Your task to perform on an android device: Open Youtube and go to the subscriptions tab Image 0: 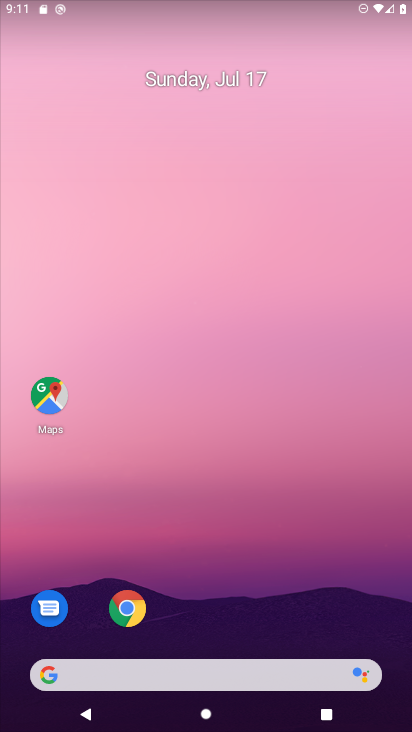
Step 0: drag from (232, 681) to (281, 149)
Your task to perform on an android device: Open Youtube and go to the subscriptions tab Image 1: 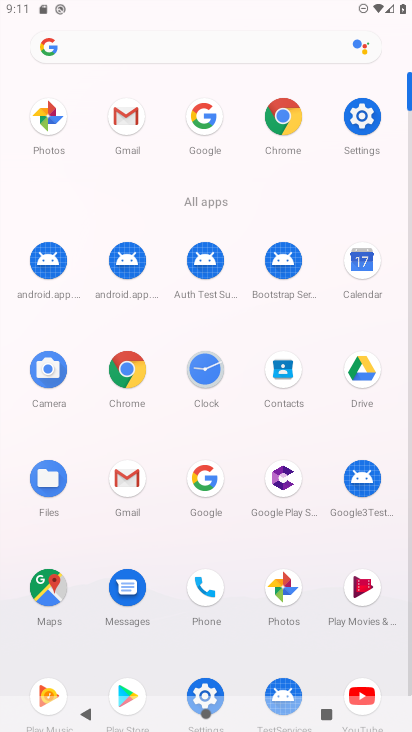
Step 1: drag from (306, 658) to (369, 550)
Your task to perform on an android device: Open Youtube and go to the subscriptions tab Image 2: 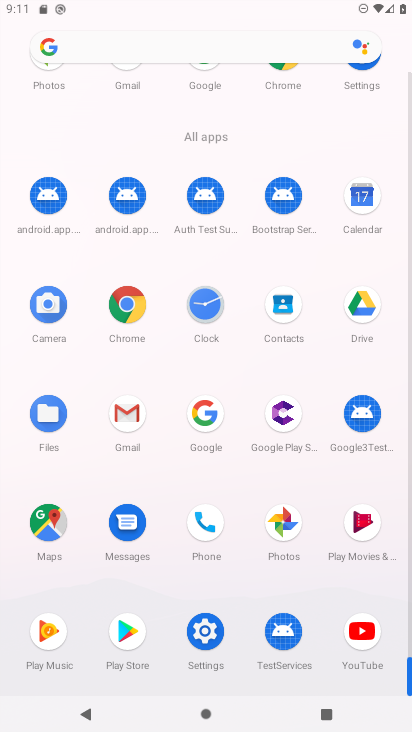
Step 2: click (361, 629)
Your task to perform on an android device: Open Youtube and go to the subscriptions tab Image 3: 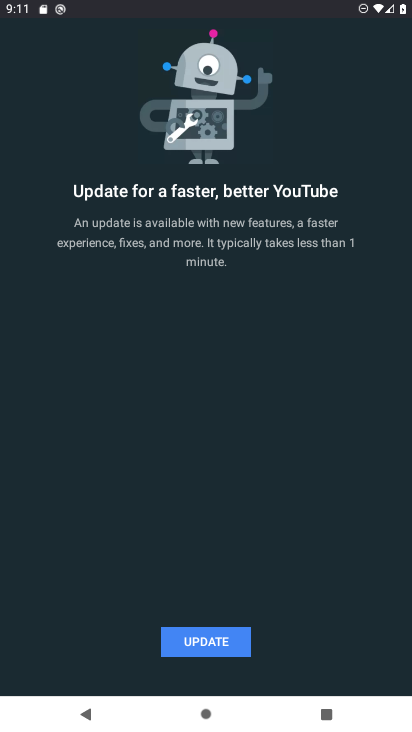
Step 3: click (224, 645)
Your task to perform on an android device: Open Youtube and go to the subscriptions tab Image 4: 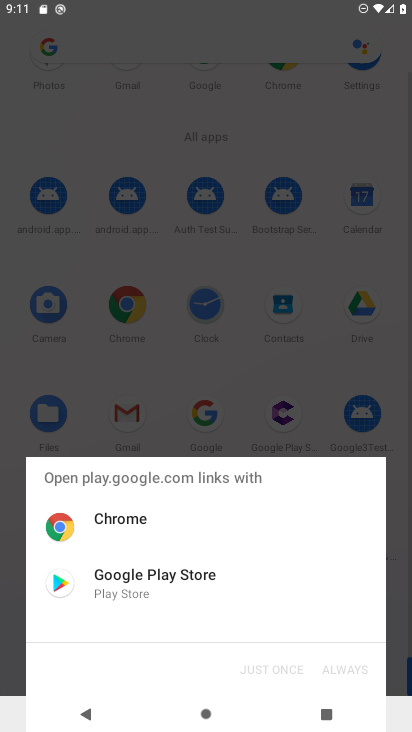
Step 4: click (164, 586)
Your task to perform on an android device: Open Youtube and go to the subscriptions tab Image 5: 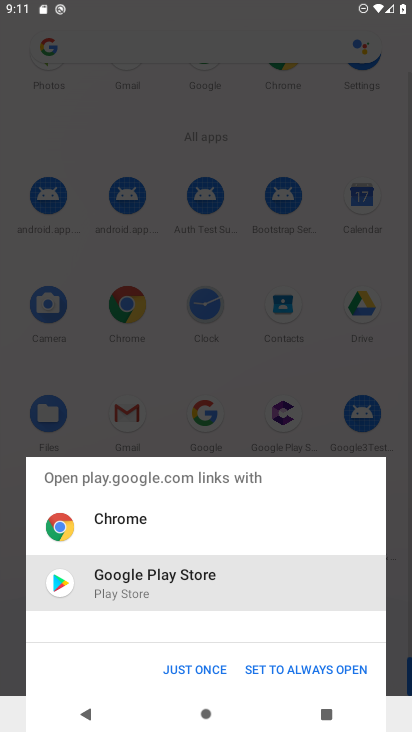
Step 5: click (193, 666)
Your task to perform on an android device: Open Youtube and go to the subscriptions tab Image 6: 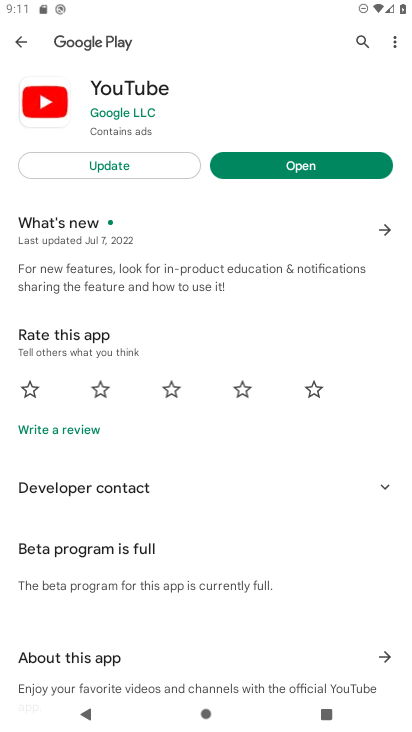
Step 6: click (110, 167)
Your task to perform on an android device: Open Youtube and go to the subscriptions tab Image 7: 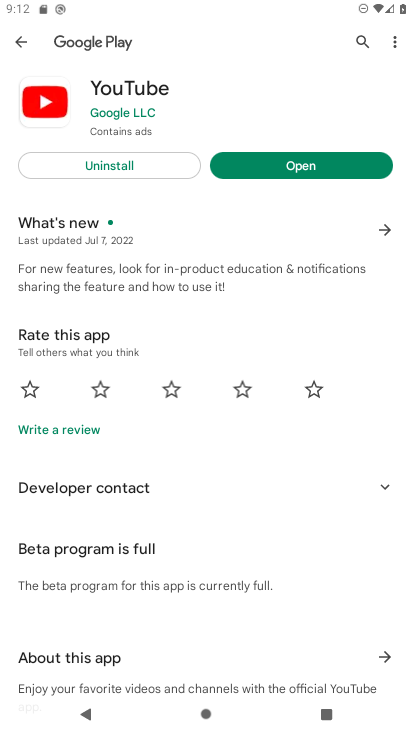
Step 7: click (363, 169)
Your task to perform on an android device: Open Youtube and go to the subscriptions tab Image 8: 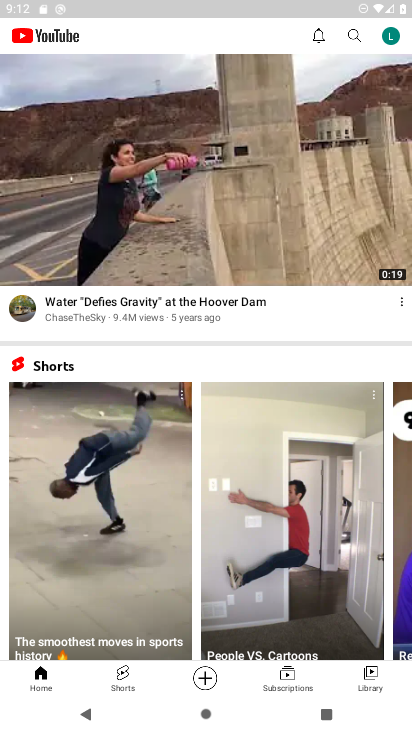
Step 8: click (282, 680)
Your task to perform on an android device: Open Youtube and go to the subscriptions tab Image 9: 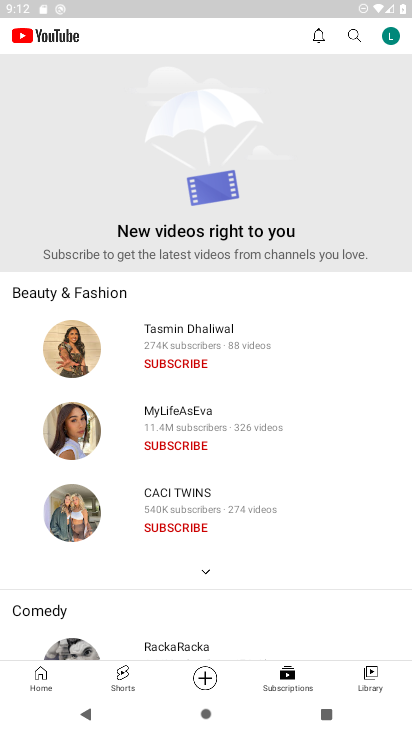
Step 9: task complete